Your task to perform on an android device: find snoozed emails in the gmail app Image 0: 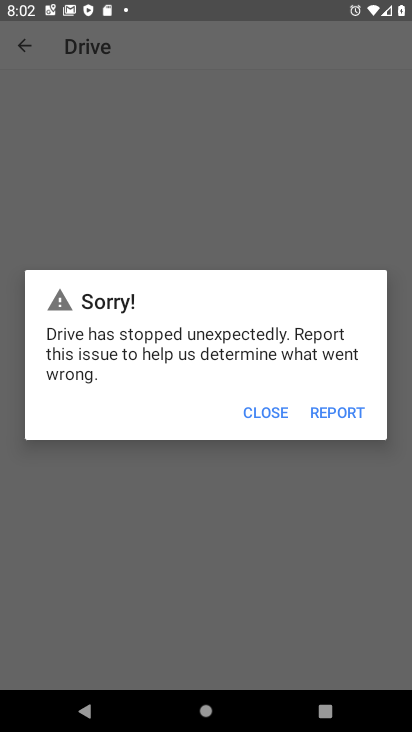
Step 0: press home button
Your task to perform on an android device: find snoozed emails in the gmail app Image 1: 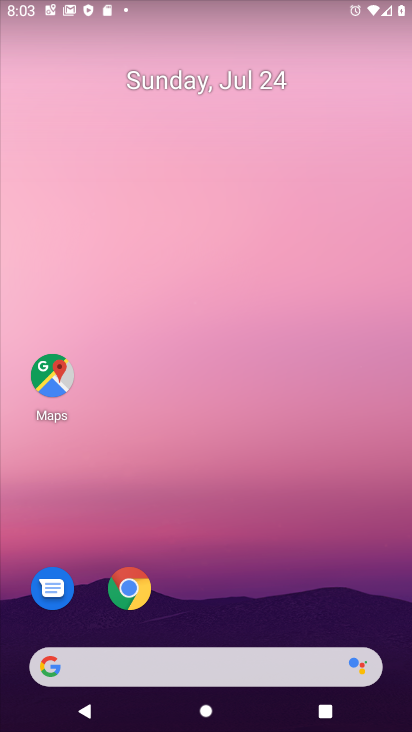
Step 1: drag from (264, 589) to (263, 11)
Your task to perform on an android device: find snoozed emails in the gmail app Image 2: 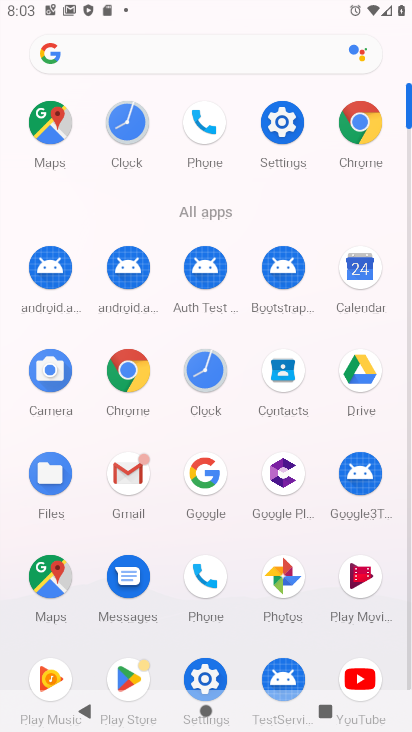
Step 2: click (129, 474)
Your task to perform on an android device: find snoozed emails in the gmail app Image 3: 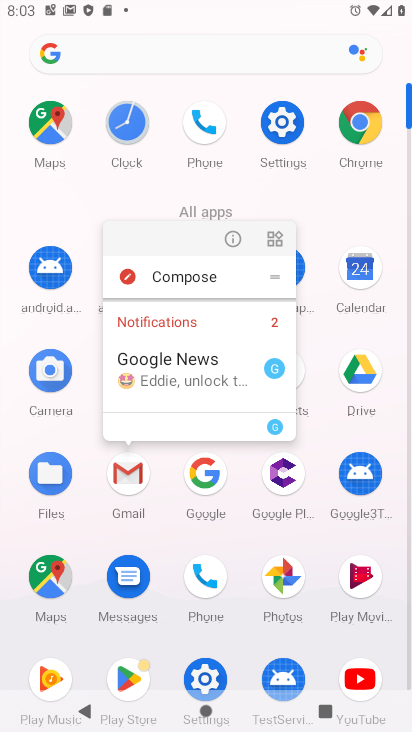
Step 3: click (126, 474)
Your task to perform on an android device: find snoozed emails in the gmail app Image 4: 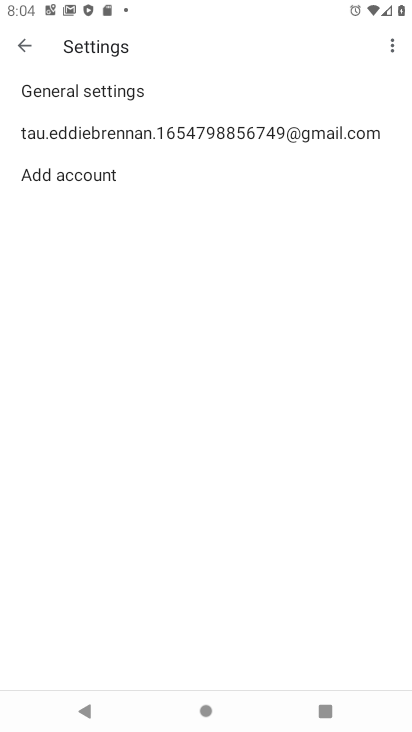
Step 4: click (43, 123)
Your task to perform on an android device: find snoozed emails in the gmail app Image 5: 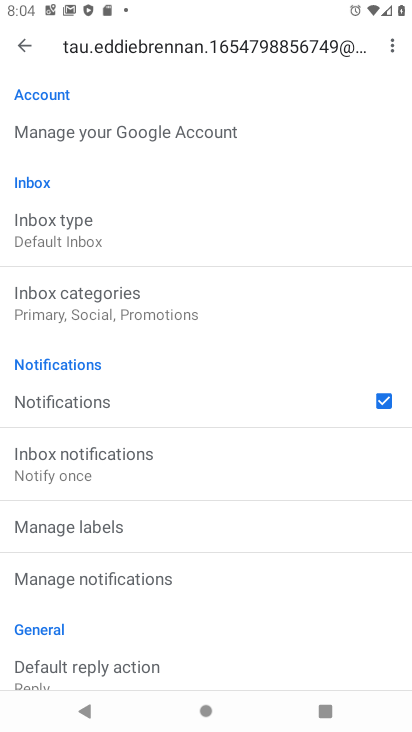
Step 5: click (15, 50)
Your task to perform on an android device: find snoozed emails in the gmail app Image 6: 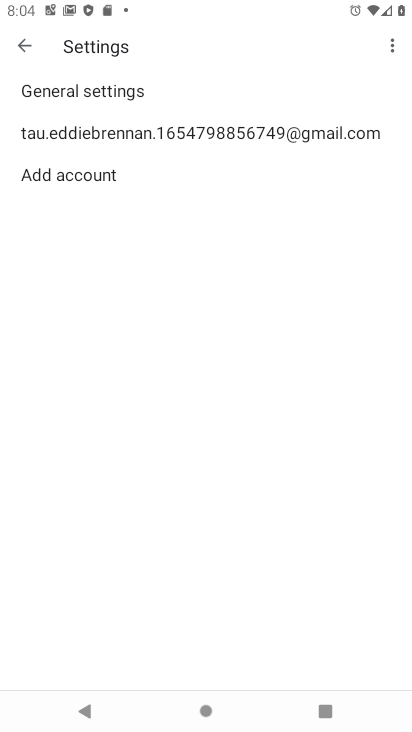
Step 6: click (15, 50)
Your task to perform on an android device: find snoozed emails in the gmail app Image 7: 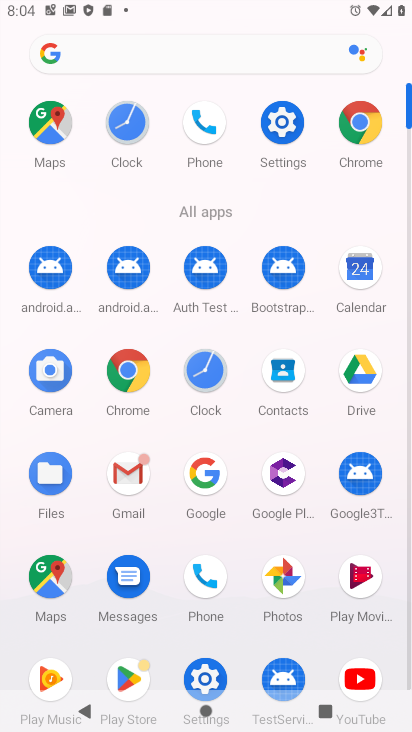
Step 7: click (126, 495)
Your task to perform on an android device: find snoozed emails in the gmail app Image 8: 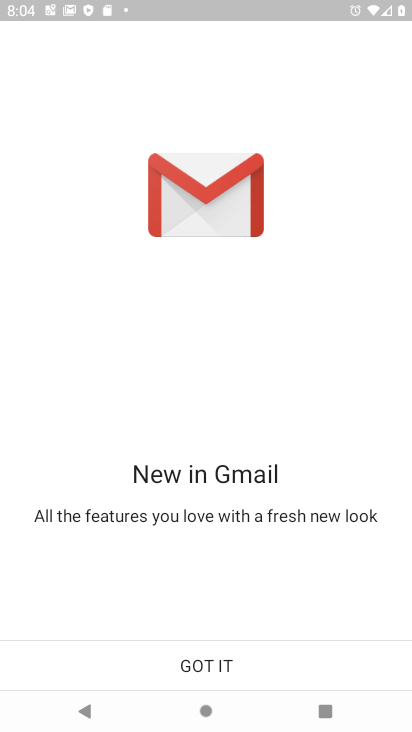
Step 8: click (182, 677)
Your task to perform on an android device: find snoozed emails in the gmail app Image 9: 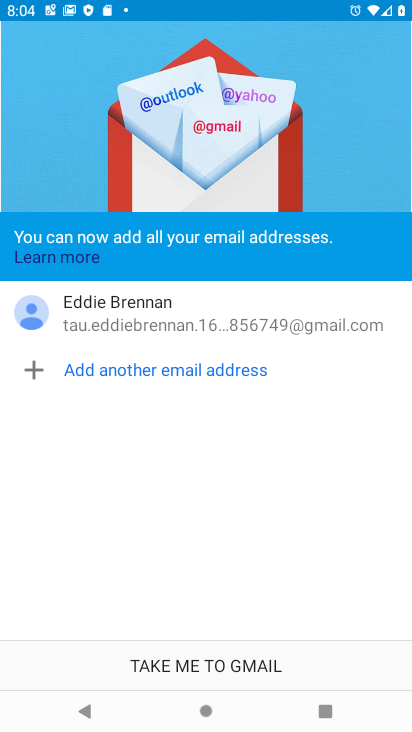
Step 9: click (180, 669)
Your task to perform on an android device: find snoozed emails in the gmail app Image 10: 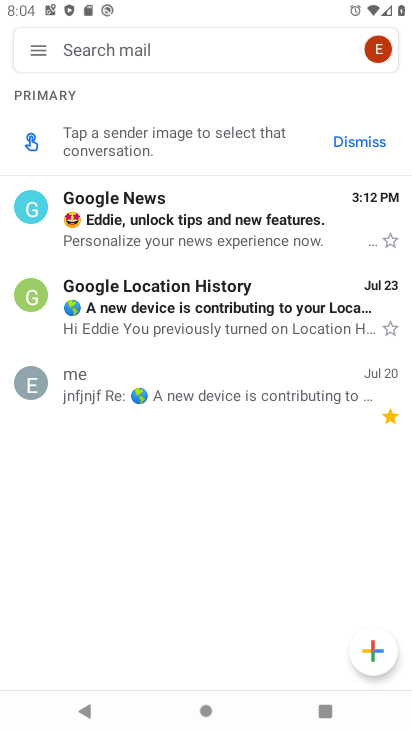
Step 10: click (47, 60)
Your task to perform on an android device: find snoozed emails in the gmail app Image 11: 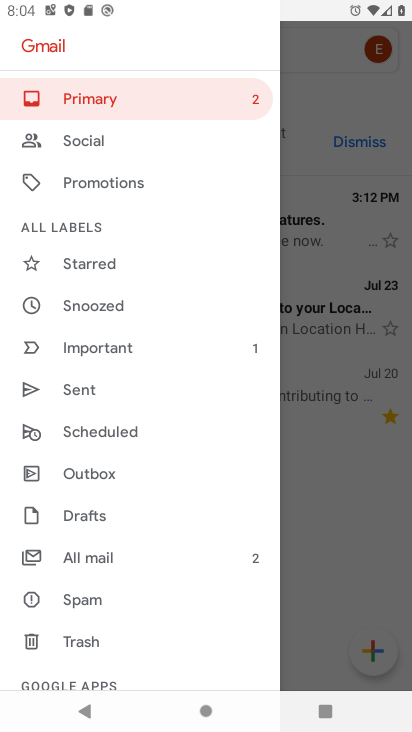
Step 11: click (113, 302)
Your task to perform on an android device: find snoozed emails in the gmail app Image 12: 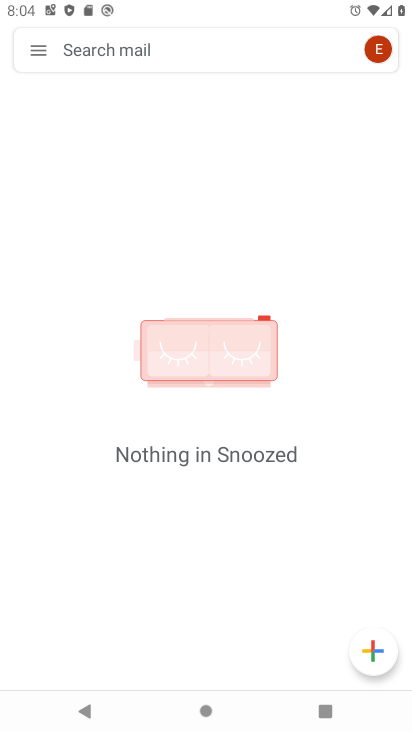
Step 12: task complete